Your task to perform on an android device: Search for "dell alienware" on ebay, select the first entry, and add it to the cart. Image 0: 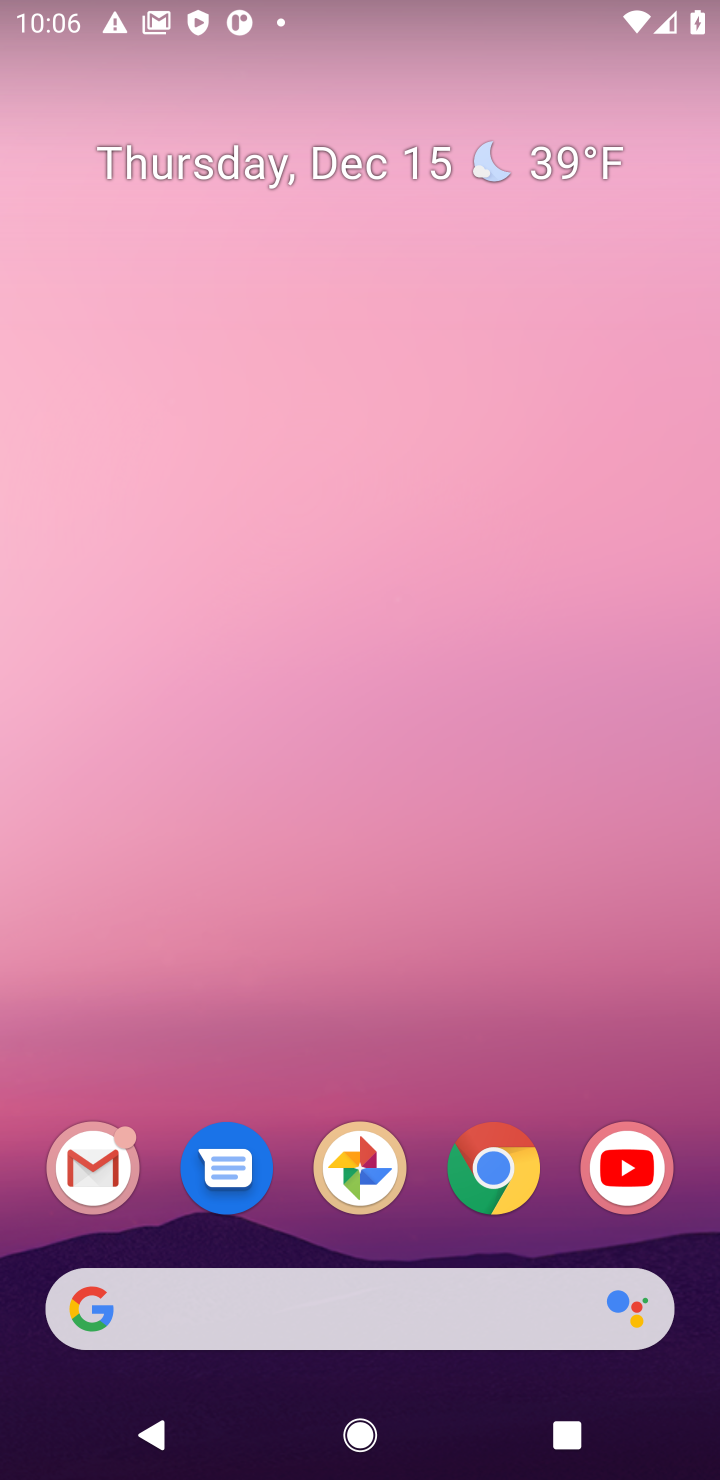
Step 0: click (488, 1161)
Your task to perform on an android device: Search for "dell alienware" on ebay, select the first entry, and add it to the cart. Image 1: 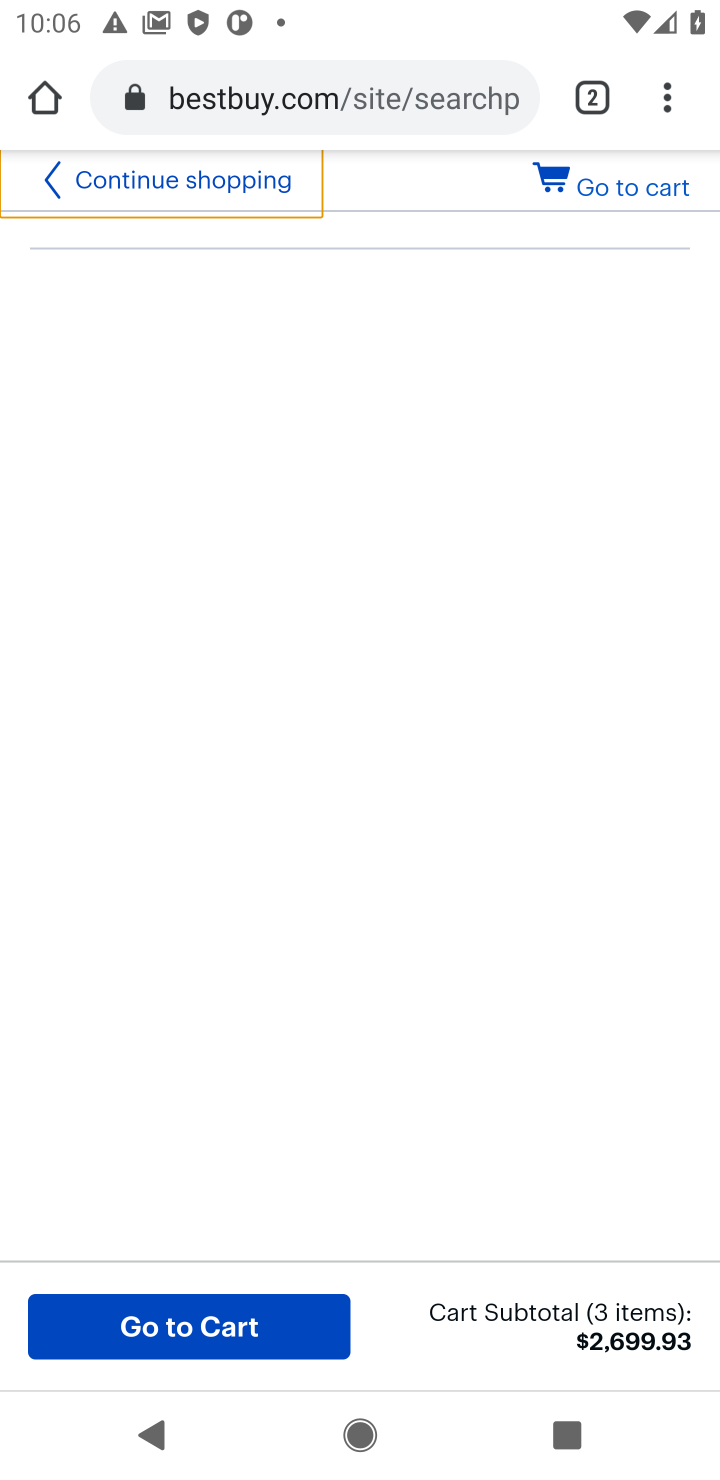
Step 1: click (311, 97)
Your task to perform on an android device: Search for "dell alienware" on ebay, select the first entry, and add it to the cart. Image 2: 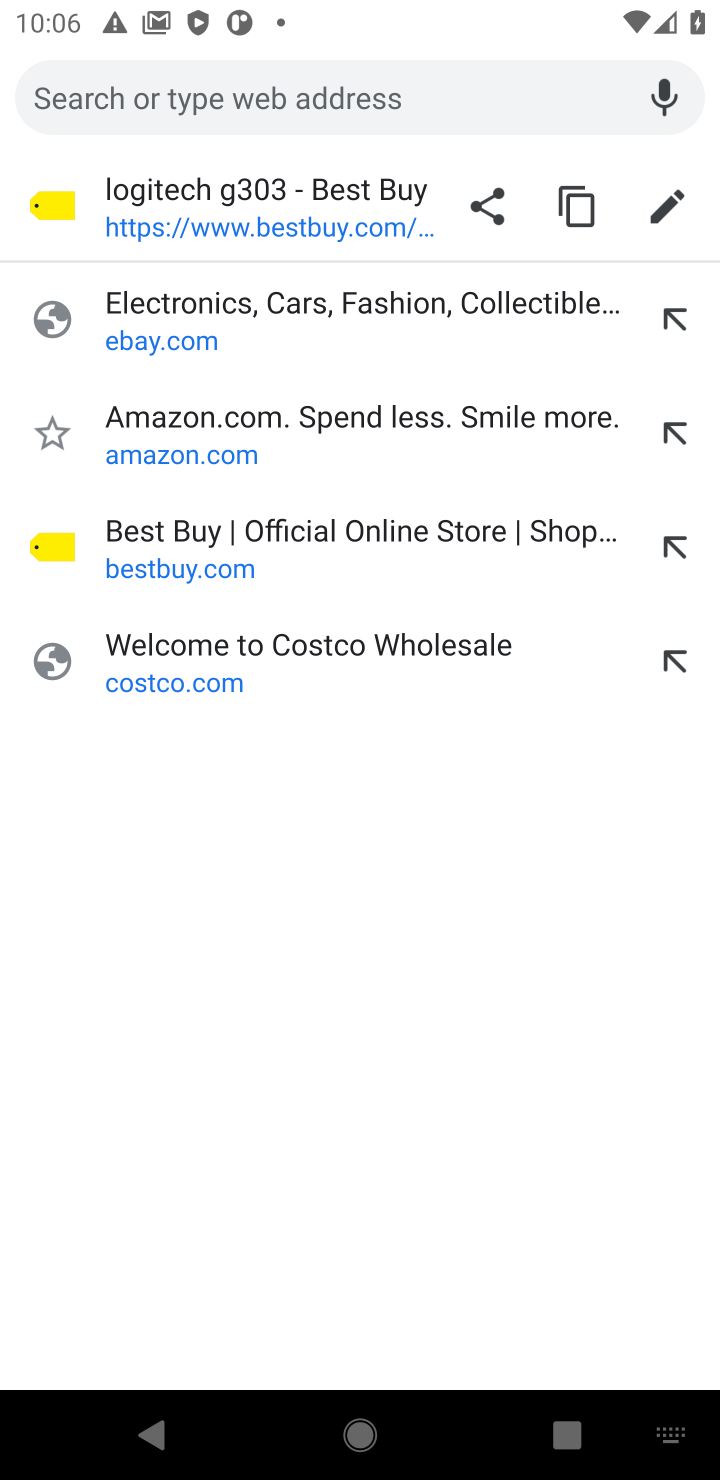
Step 2: click (242, 322)
Your task to perform on an android device: Search for "dell alienware" on ebay, select the first entry, and add it to the cart. Image 3: 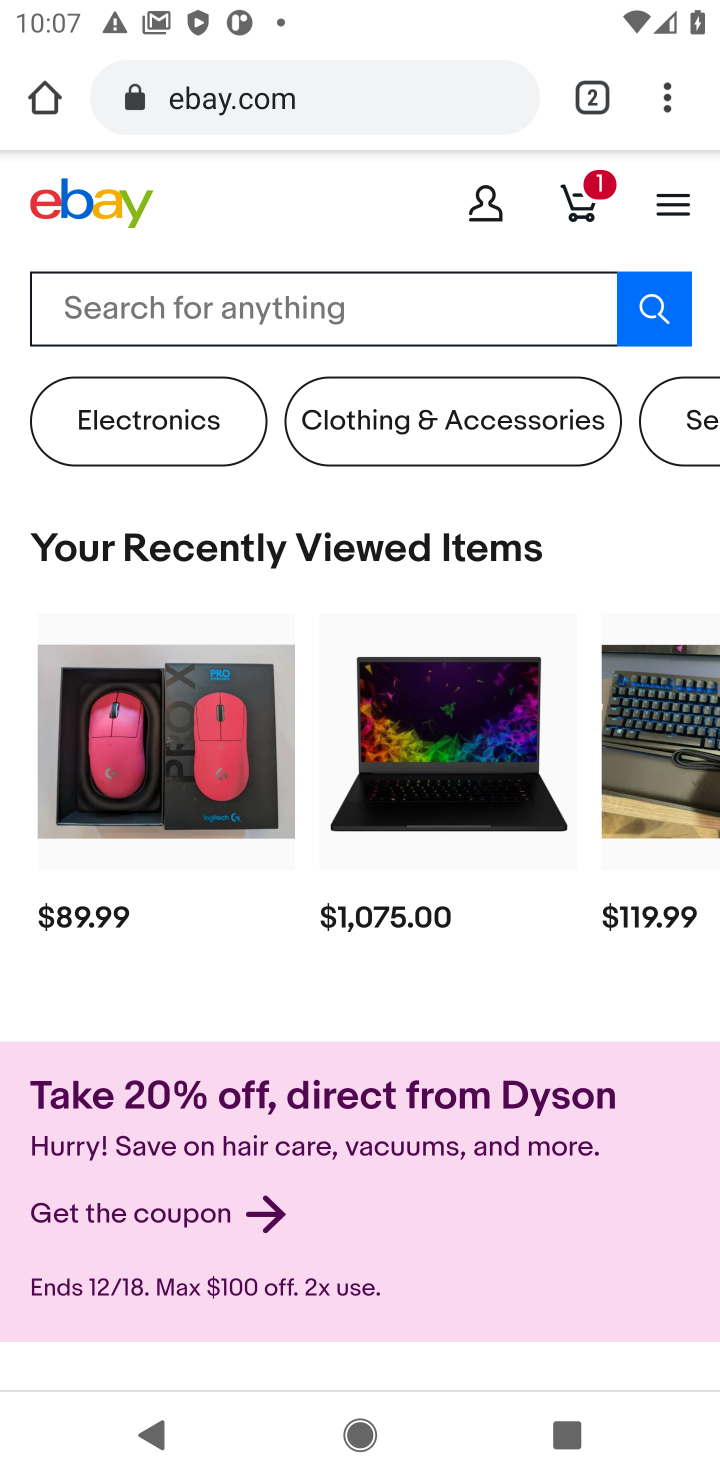
Step 3: click (315, 302)
Your task to perform on an android device: Search for "dell alienware" on ebay, select the first entry, and add it to the cart. Image 4: 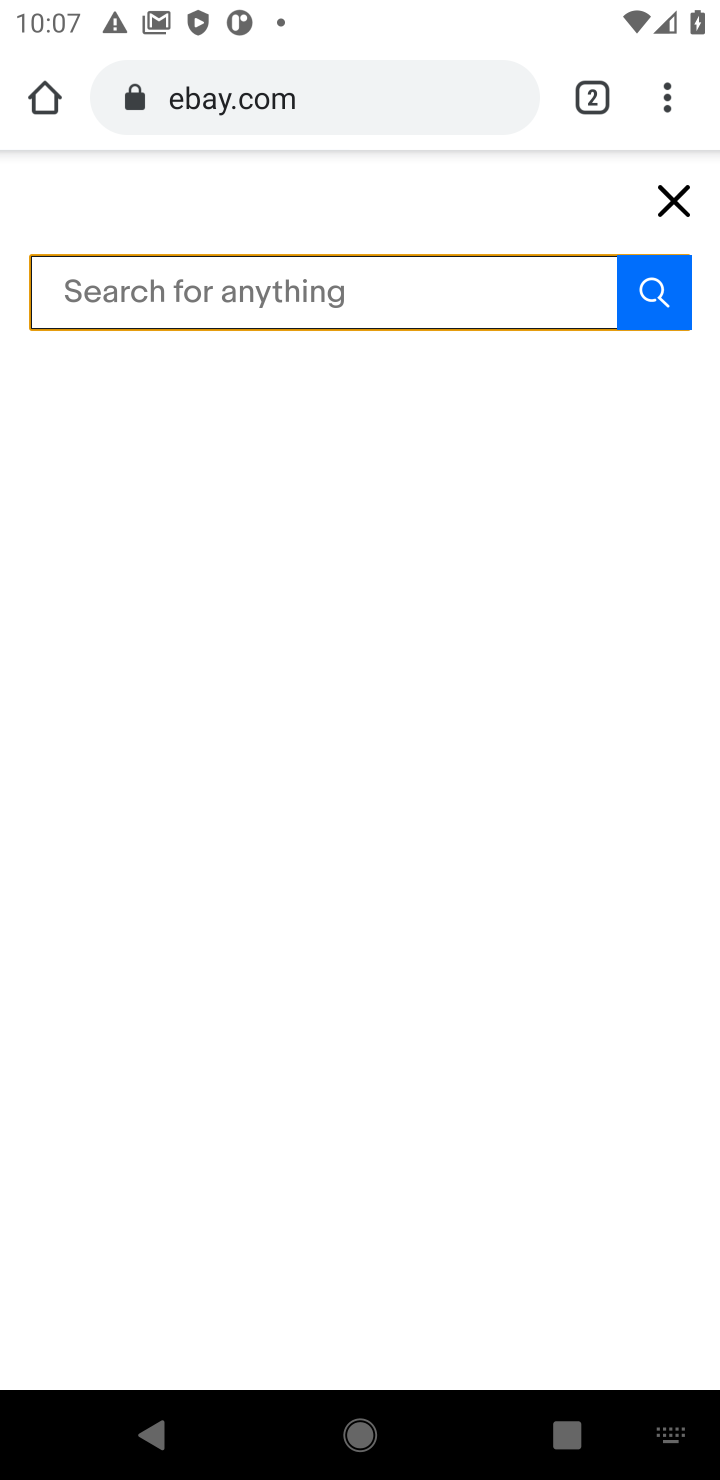
Step 4: type "dell alienware"
Your task to perform on an android device: Search for "dell alienware" on ebay, select the first entry, and add it to the cart. Image 5: 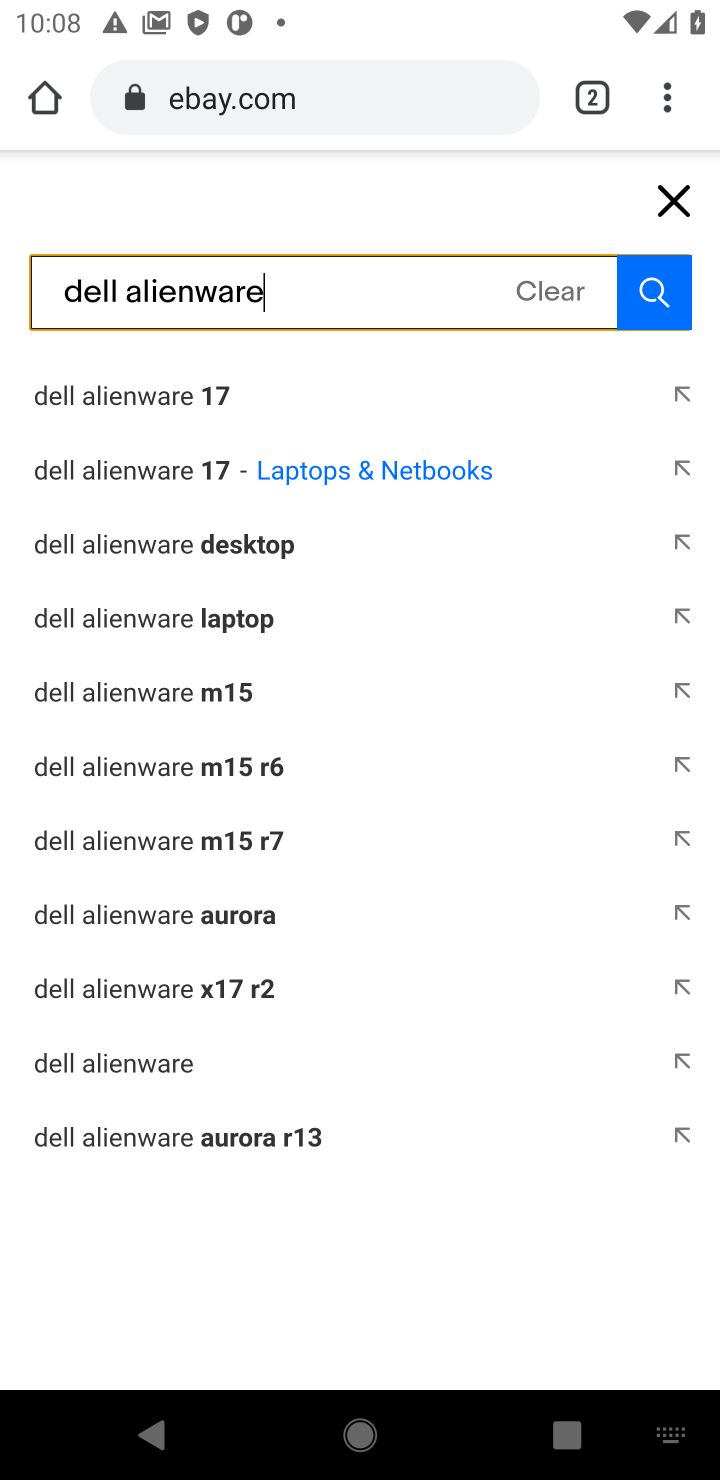
Step 5: click (223, 392)
Your task to perform on an android device: Search for "dell alienware" on ebay, select the first entry, and add it to the cart. Image 6: 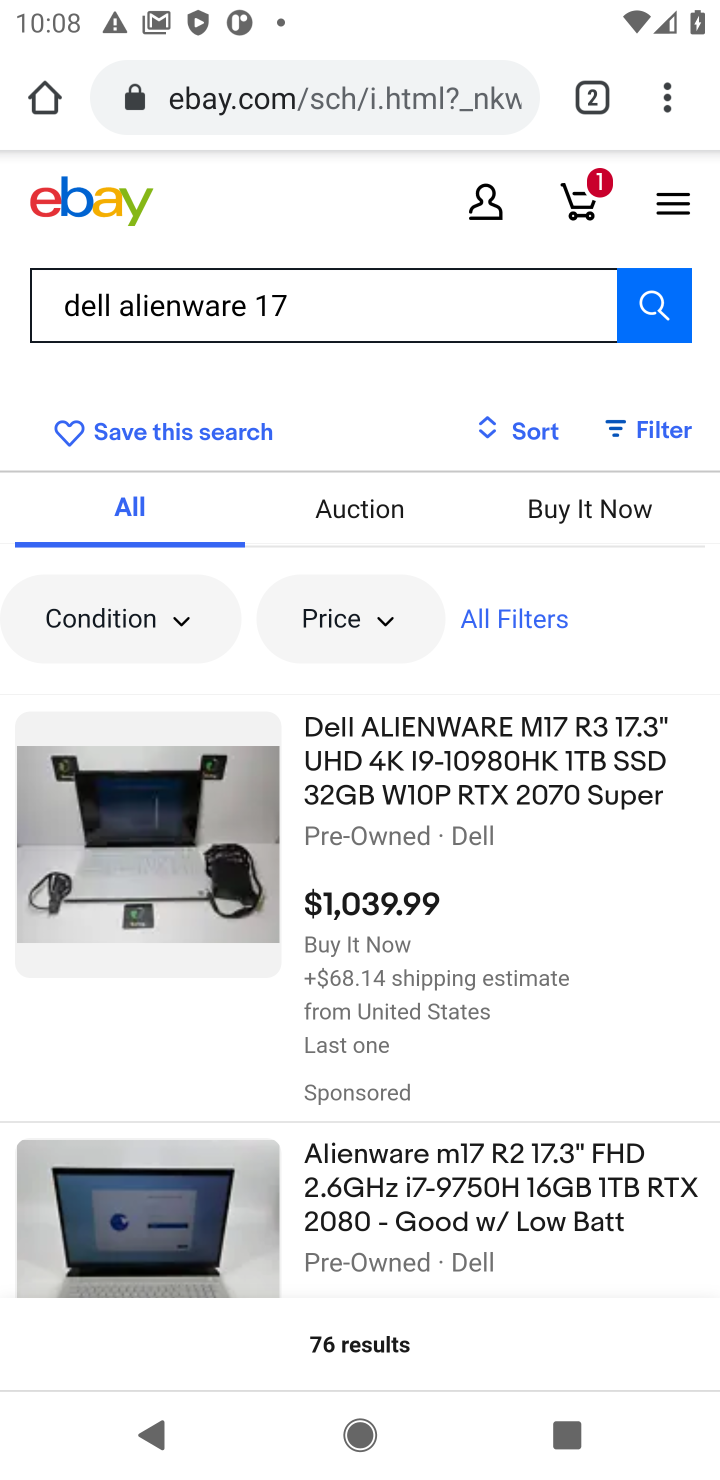
Step 6: click (544, 784)
Your task to perform on an android device: Search for "dell alienware" on ebay, select the first entry, and add it to the cart. Image 7: 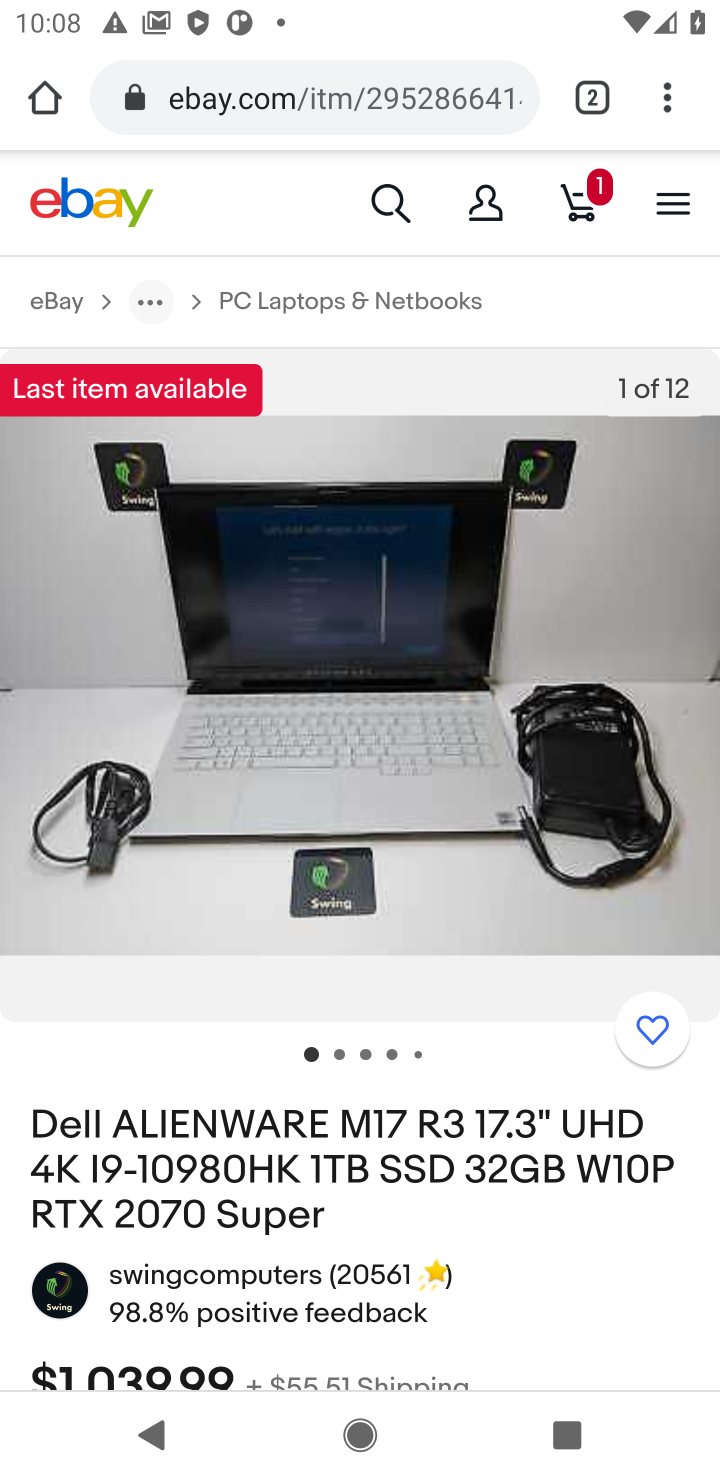
Step 7: drag from (541, 1268) to (529, 185)
Your task to perform on an android device: Search for "dell alienware" on ebay, select the first entry, and add it to the cart. Image 8: 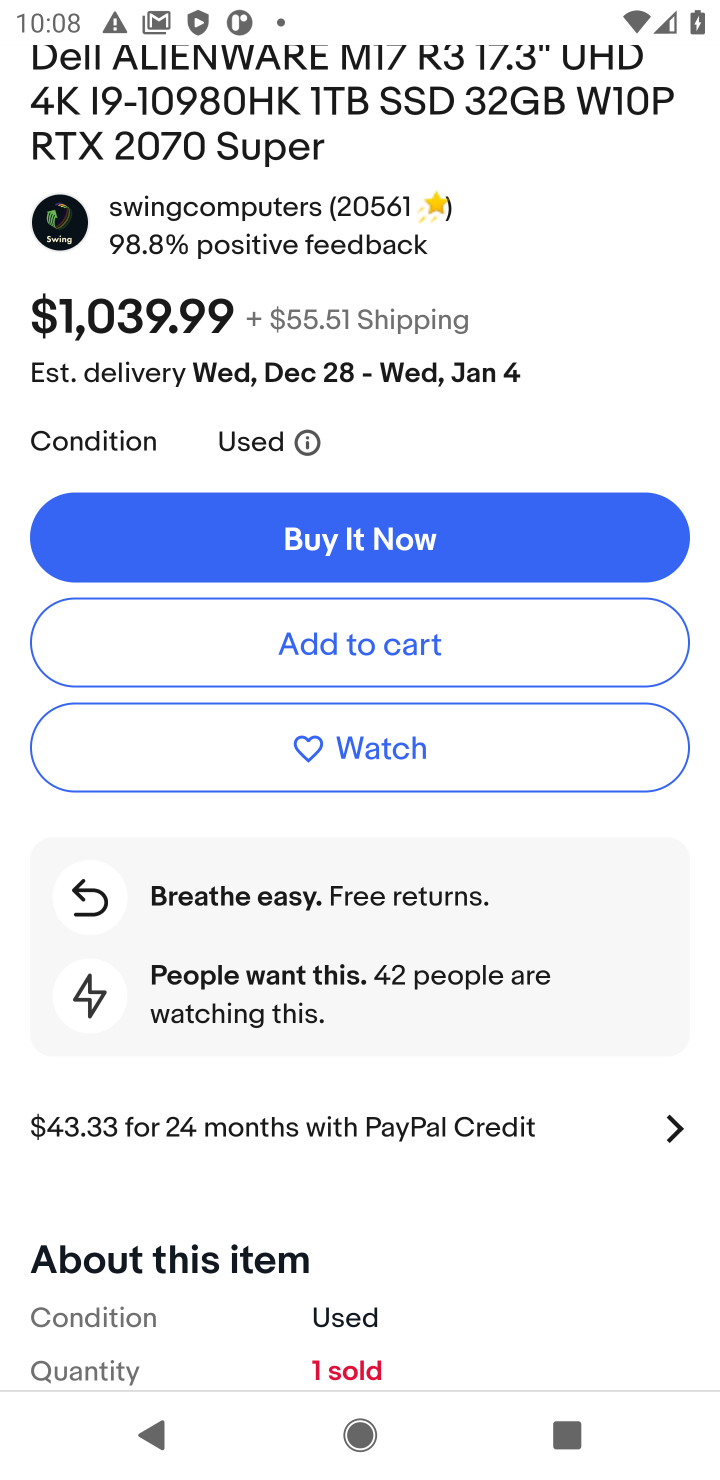
Step 8: click (388, 645)
Your task to perform on an android device: Search for "dell alienware" on ebay, select the first entry, and add it to the cart. Image 9: 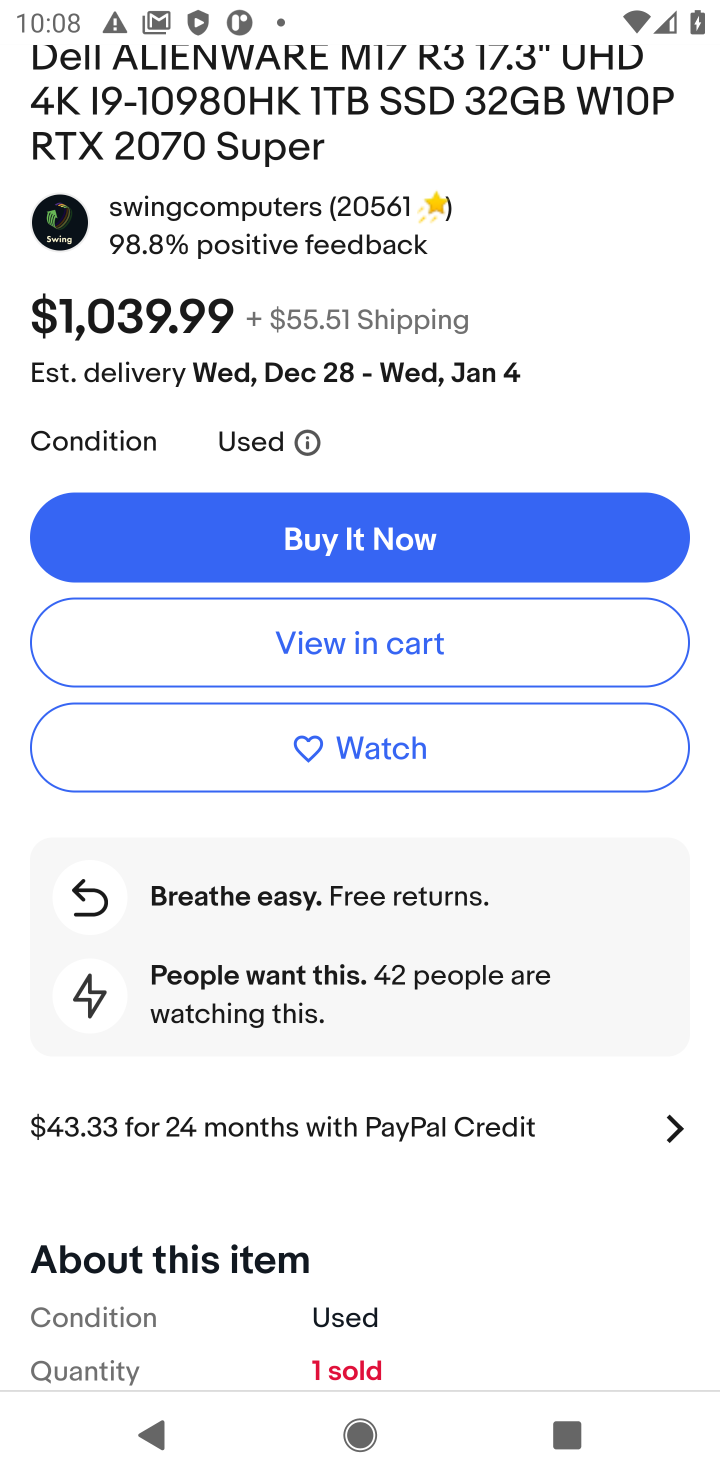
Step 9: click (453, 628)
Your task to perform on an android device: Search for "dell alienware" on ebay, select the first entry, and add it to the cart. Image 10: 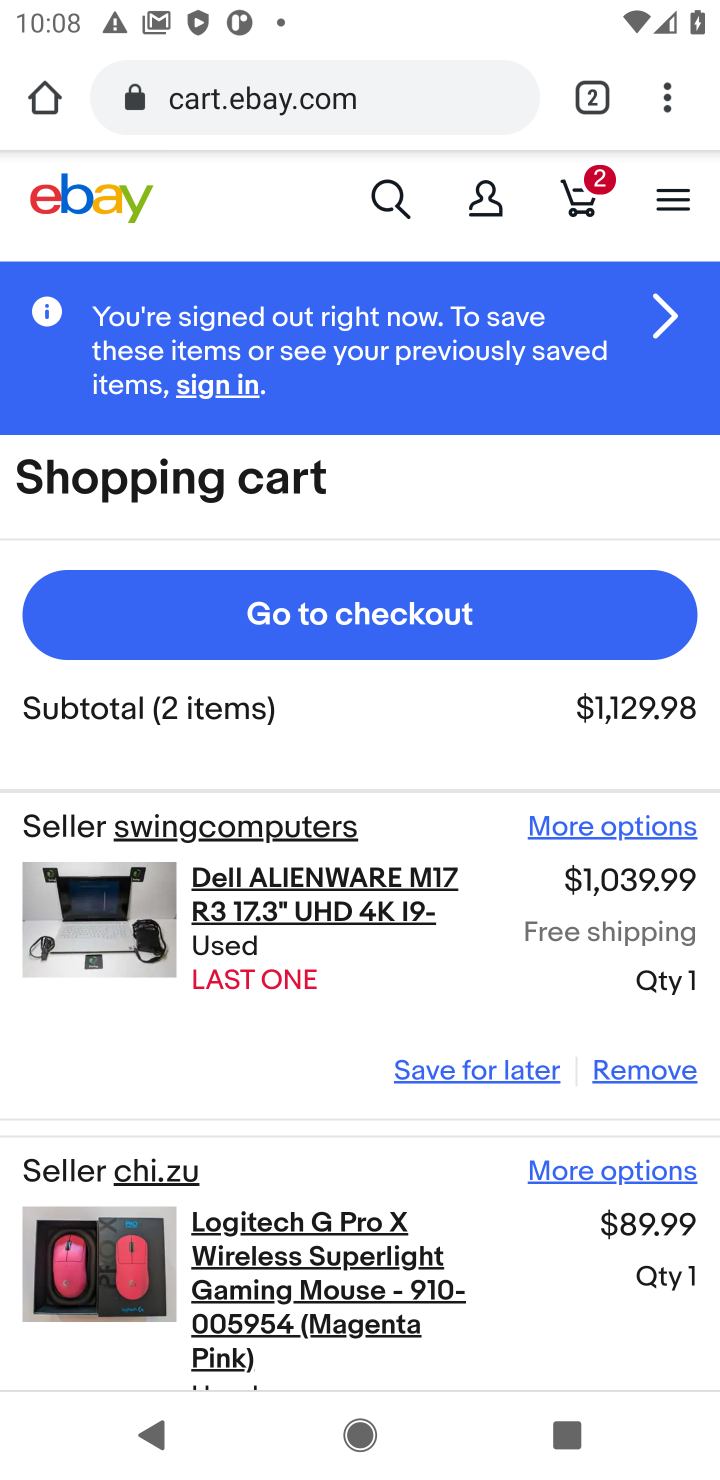
Step 10: click (296, 616)
Your task to perform on an android device: Search for "dell alienware" on ebay, select the first entry, and add it to the cart. Image 11: 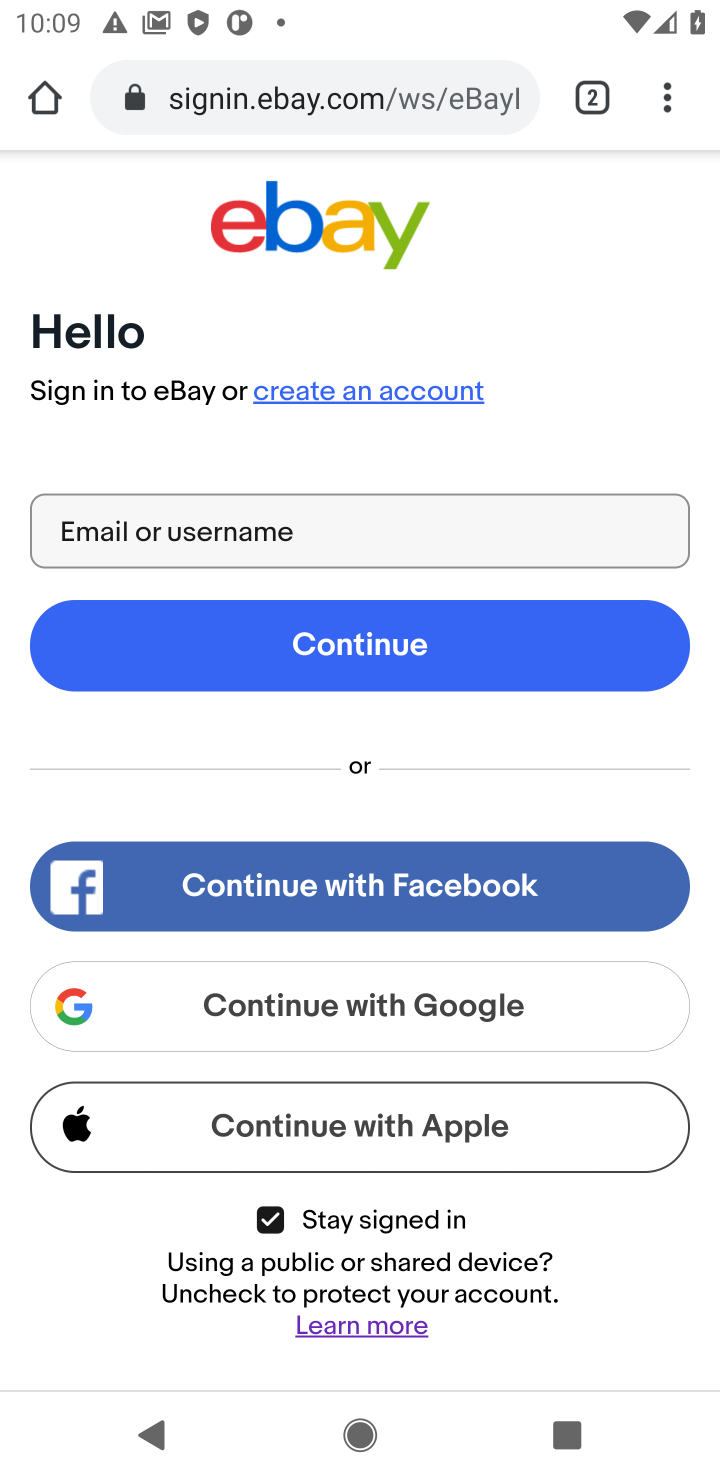
Step 11: task complete